Your task to perform on an android device: clear history in the chrome app Image 0: 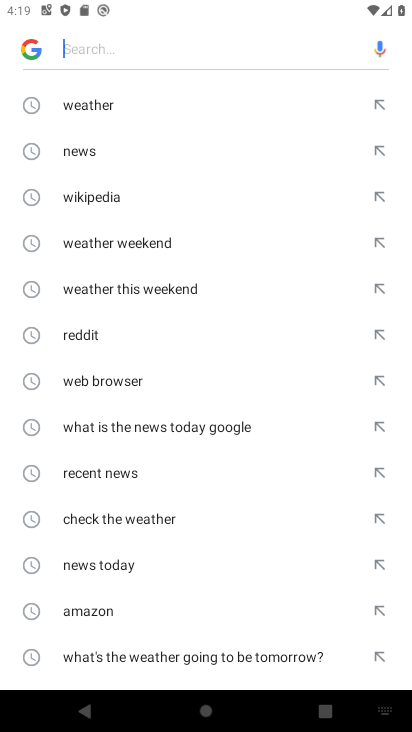
Step 0: press home button
Your task to perform on an android device: clear history in the chrome app Image 1: 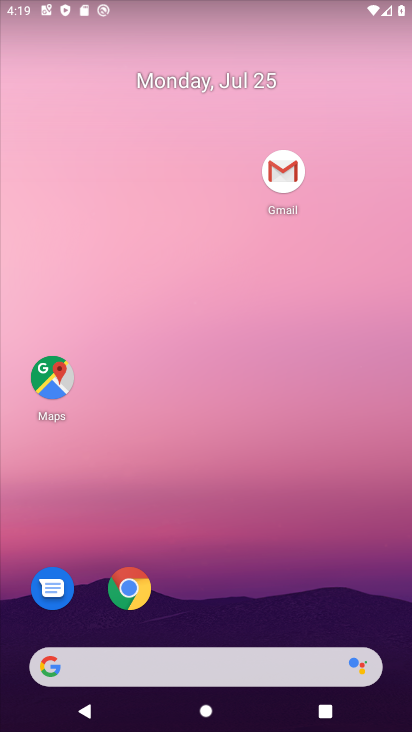
Step 1: drag from (277, 595) to (347, 114)
Your task to perform on an android device: clear history in the chrome app Image 2: 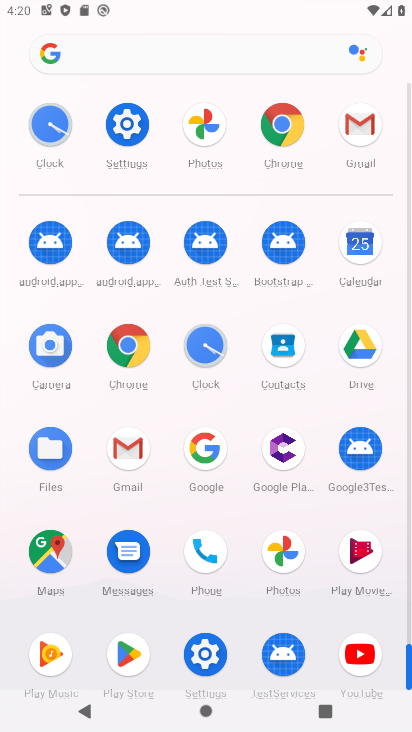
Step 2: click (278, 114)
Your task to perform on an android device: clear history in the chrome app Image 3: 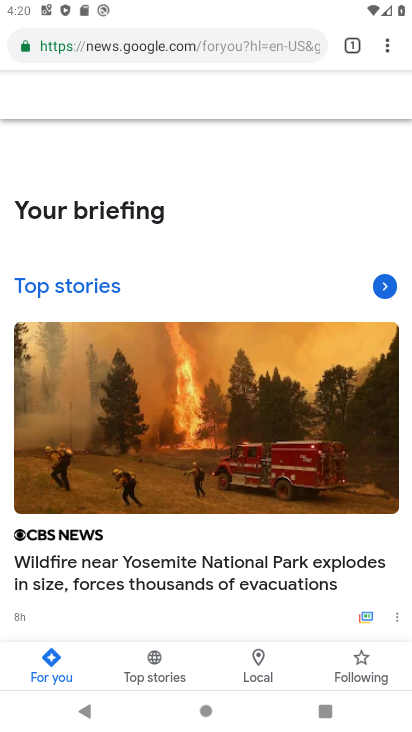
Step 3: drag from (387, 46) to (248, 247)
Your task to perform on an android device: clear history in the chrome app Image 4: 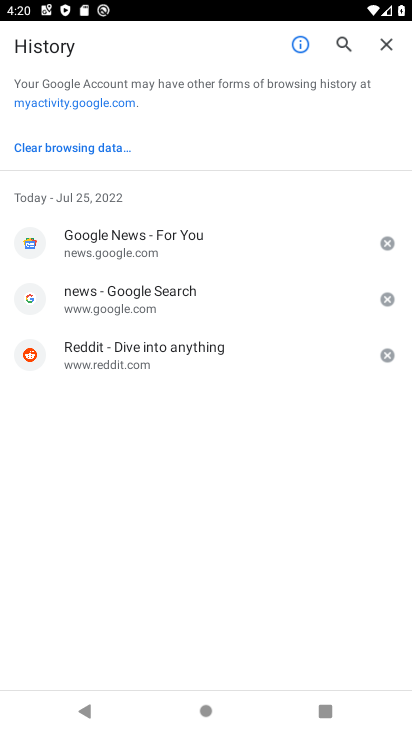
Step 4: click (82, 151)
Your task to perform on an android device: clear history in the chrome app Image 5: 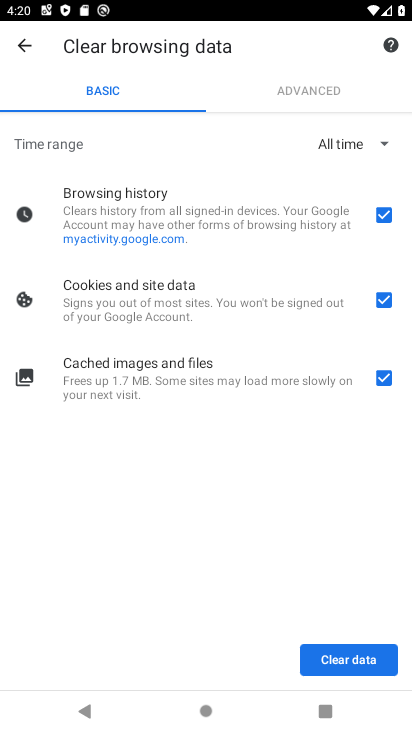
Step 5: click (362, 657)
Your task to perform on an android device: clear history in the chrome app Image 6: 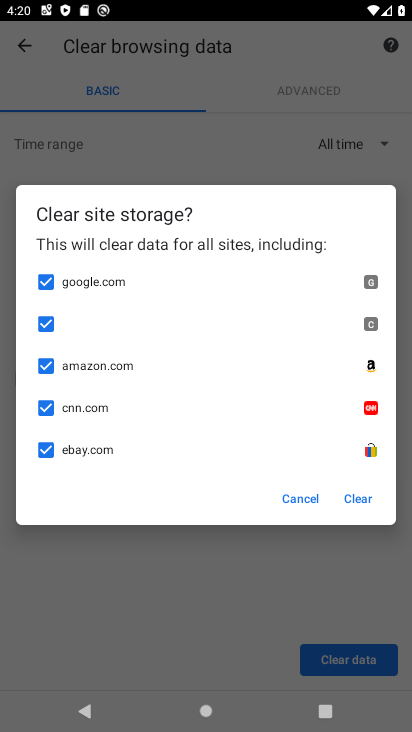
Step 6: click (359, 505)
Your task to perform on an android device: clear history in the chrome app Image 7: 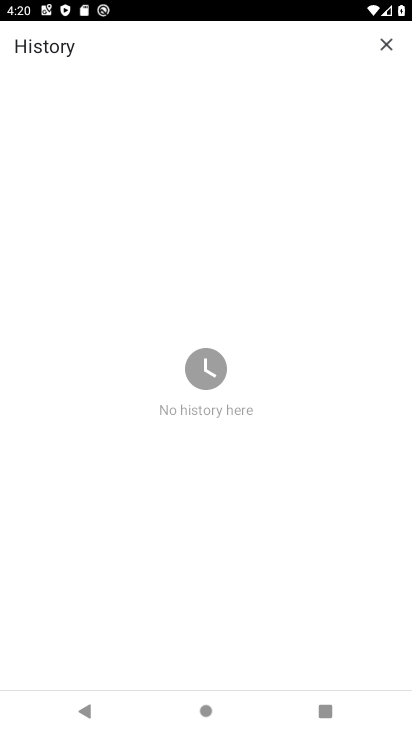
Step 7: task complete